Your task to perform on an android device: turn on wifi Image 0: 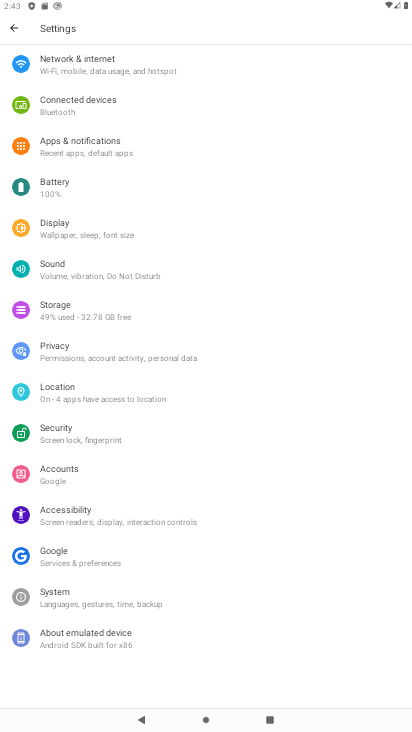
Step 0: press home button
Your task to perform on an android device: turn on wifi Image 1: 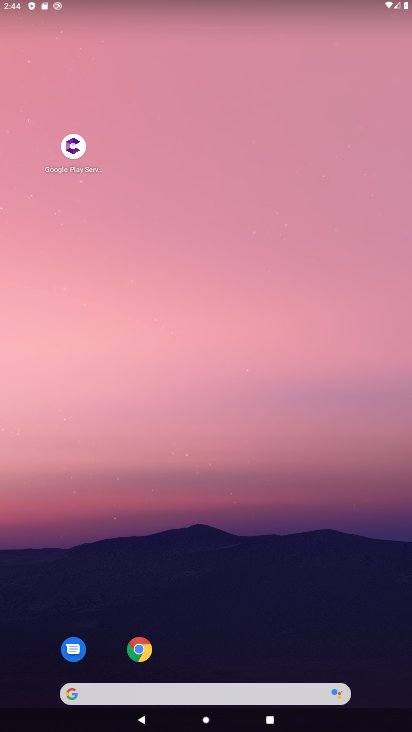
Step 1: task complete